Your task to perform on an android device: change your default location settings in chrome Image 0: 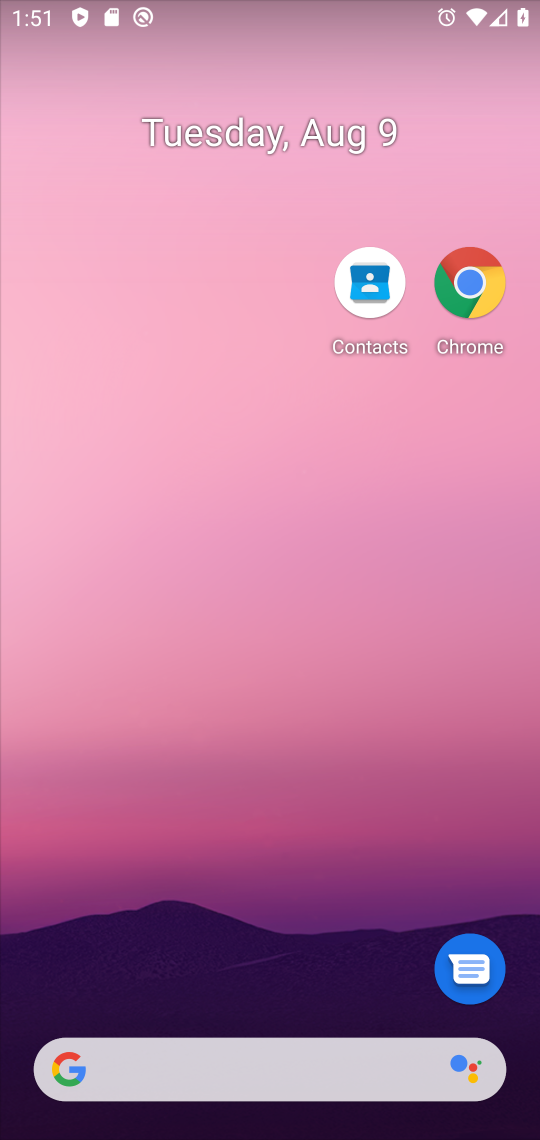
Step 0: drag from (375, 881) to (440, 336)
Your task to perform on an android device: change your default location settings in chrome Image 1: 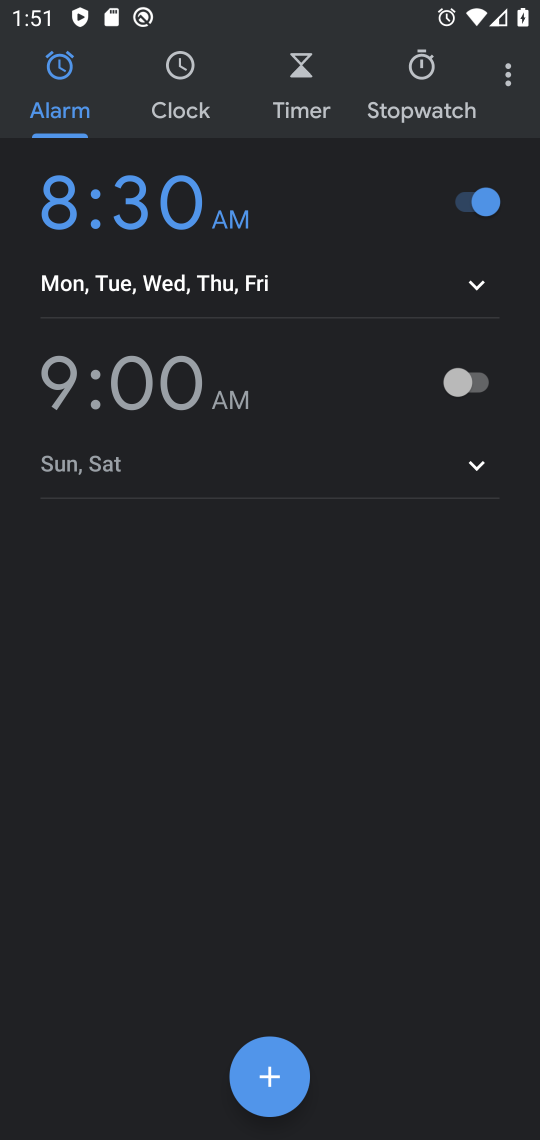
Step 1: press home button
Your task to perform on an android device: change your default location settings in chrome Image 2: 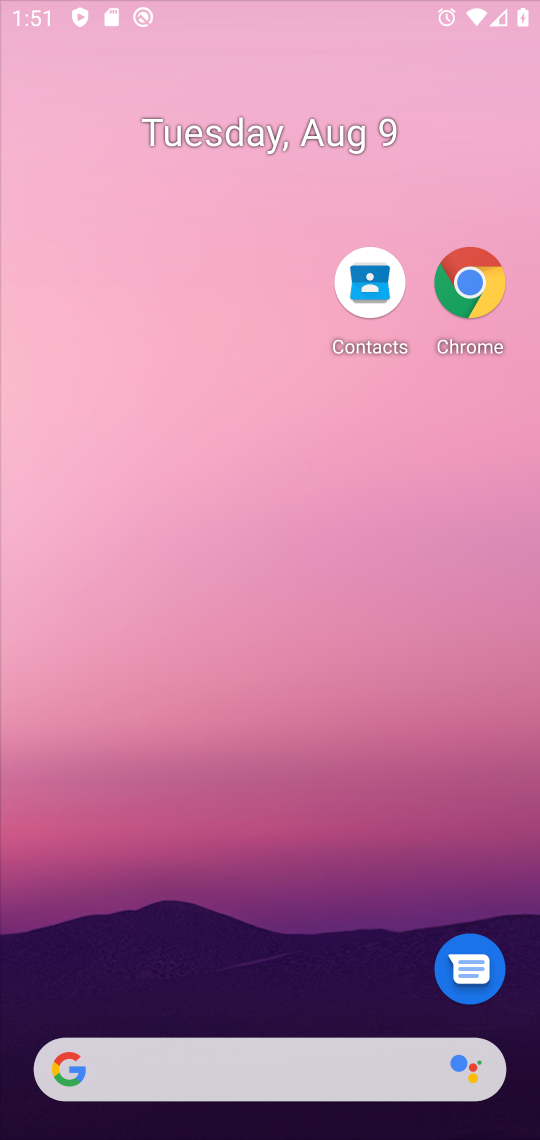
Step 2: drag from (377, 951) to (377, 548)
Your task to perform on an android device: change your default location settings in chrome Image 3: 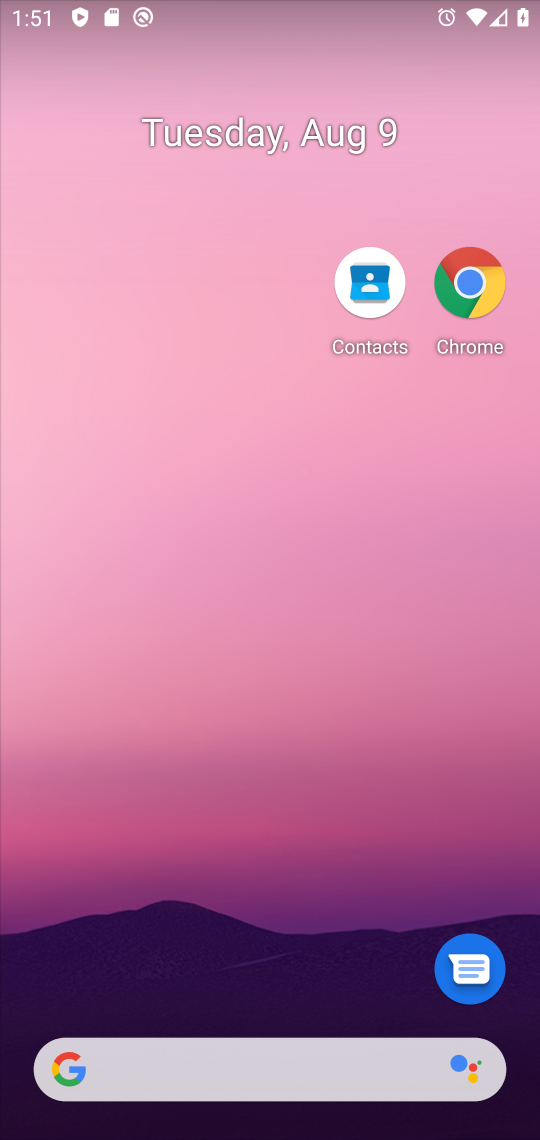
Step 3: click (304, 140)
Your task to perform on an android device: change your default location settings in chrome Image 4: 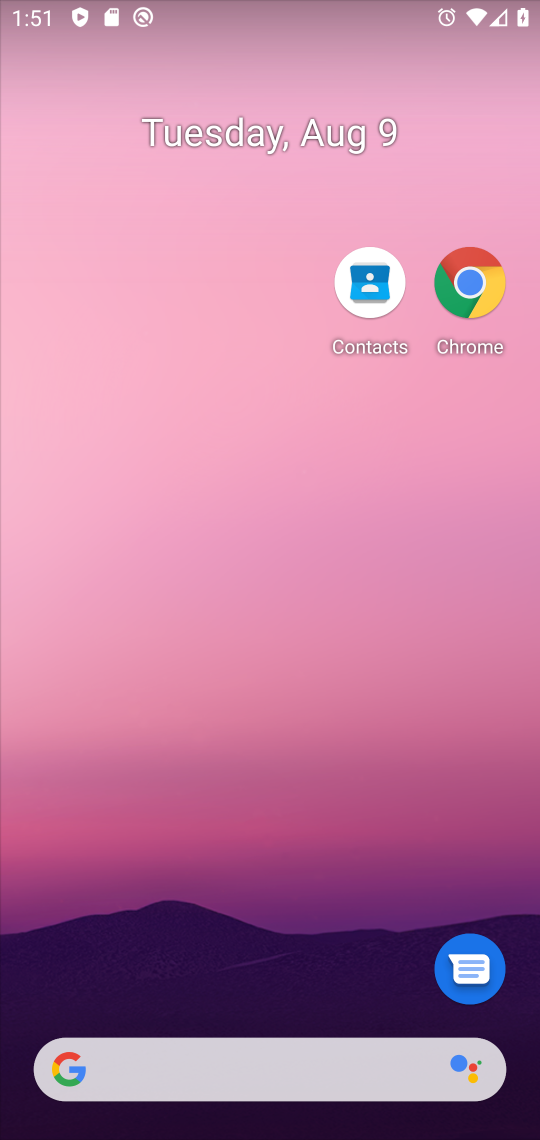
Step 4: drag from (287, 985) to (334, 239)
Your task to perform on an android device: change your default location settings in chrome Image 5: 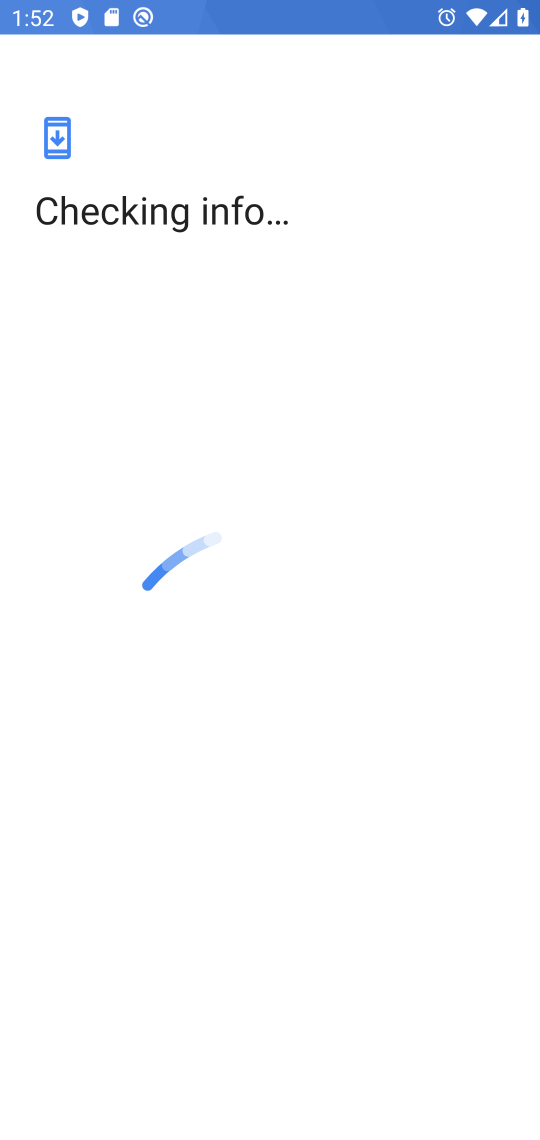
Step 5: press back button
Your task to perform on an android device: change your default location settings in chrome Image 6: 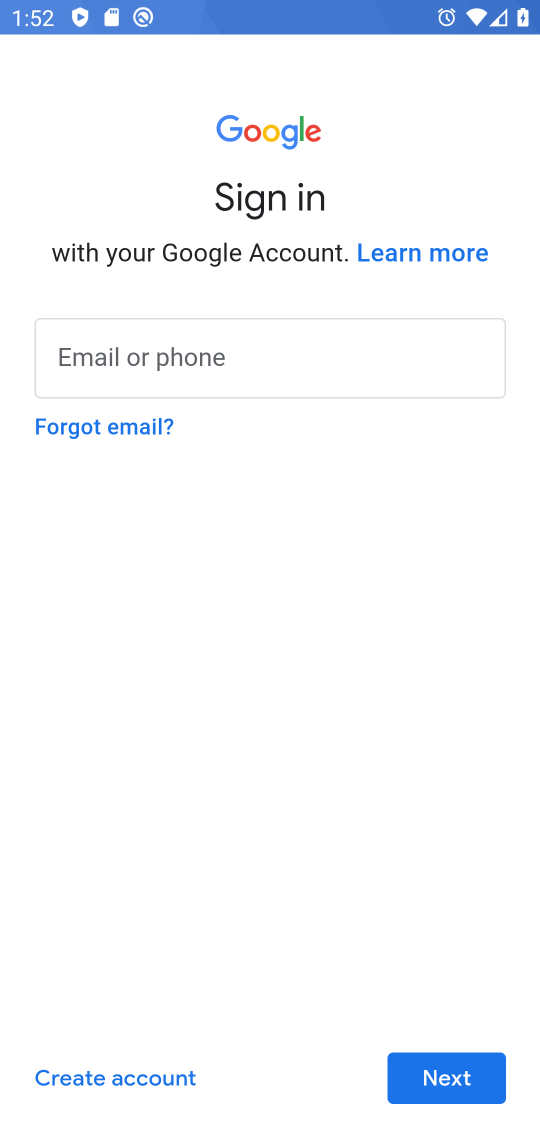
Step 6: press back button
Your task to perform on an android device: change your default location settings in chrome Image 7: 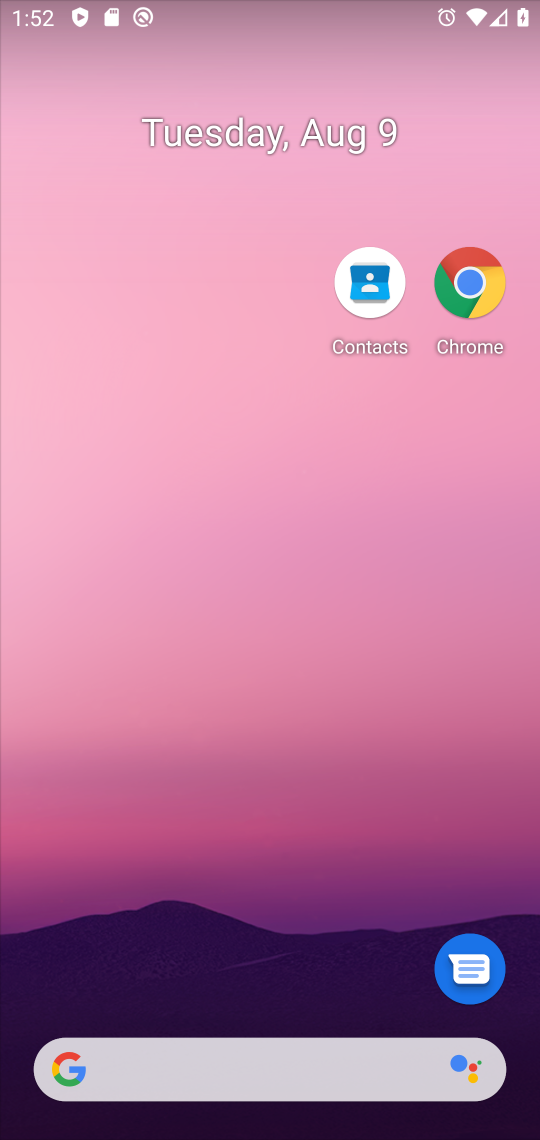
Step 7: press home button
Your task to perform on an android device: change your default location settings in chrome Image 8: 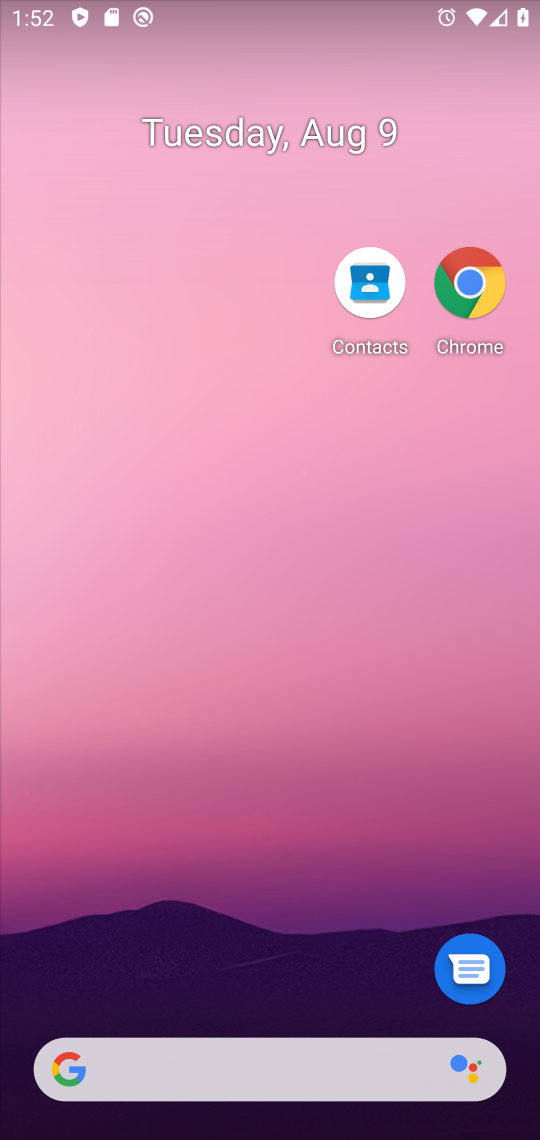
Step 8: drag from (280, 962) to (452, 170)
Your task to perform on an android device: change your default location settings in chrome Image 9: 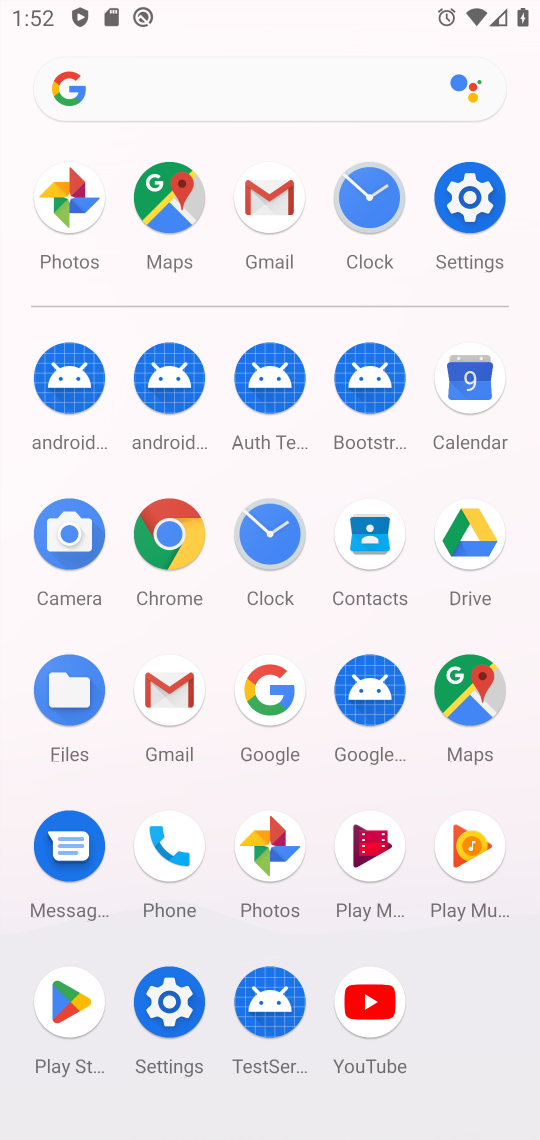
Step 9: click (170, 530)
Your task to perform on an android device: change your default location settings in chrome Image 10: 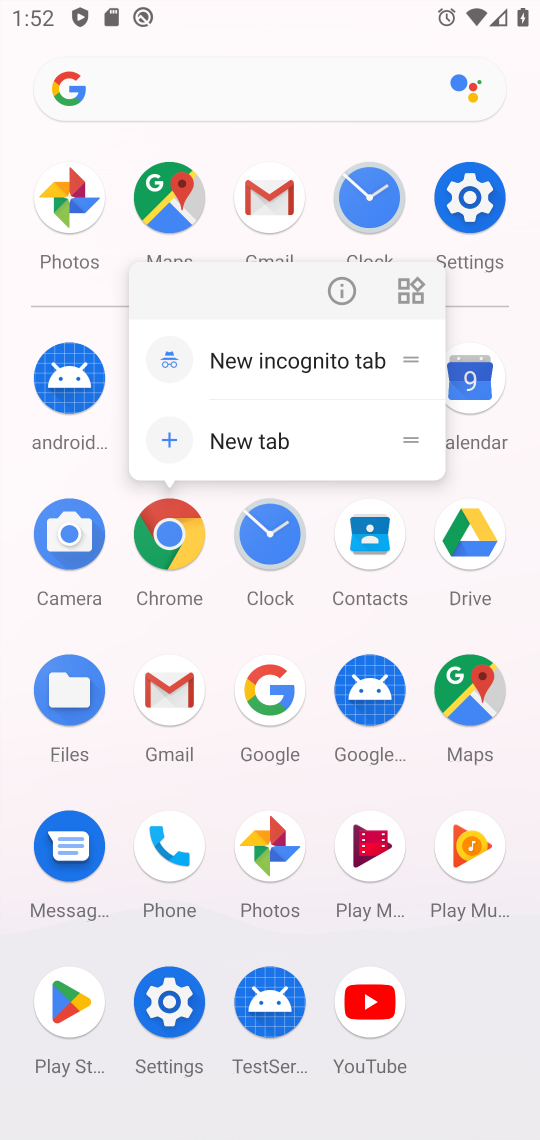
Step 10: click (349, 284)
Your task to perform on an android device: change your default location settings in chrome Image 11: 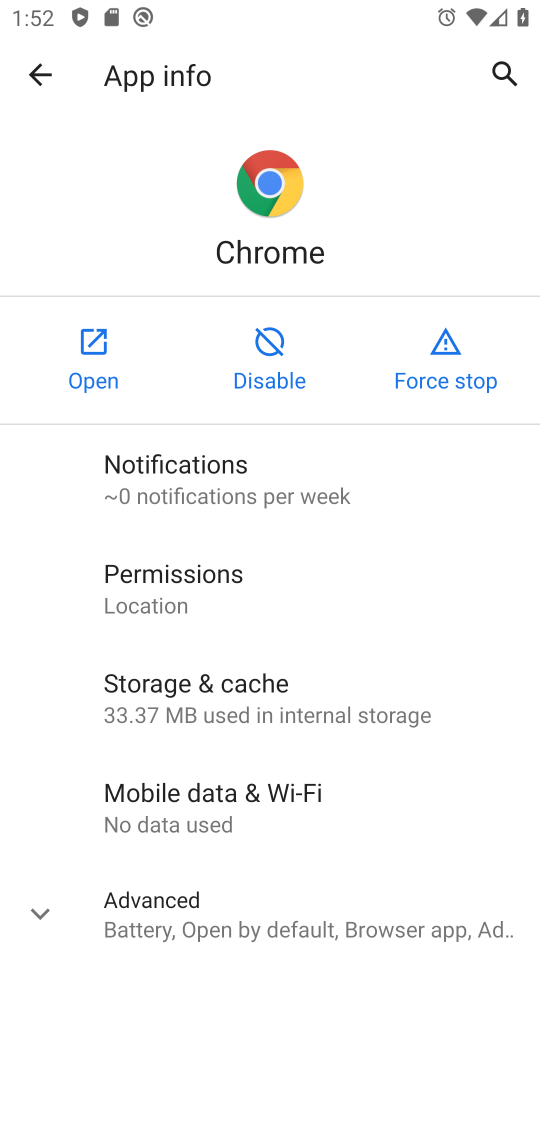
Step 11: click (89, 380)
Your task to perform on an android device: change your default location settings in chrome Image 12: 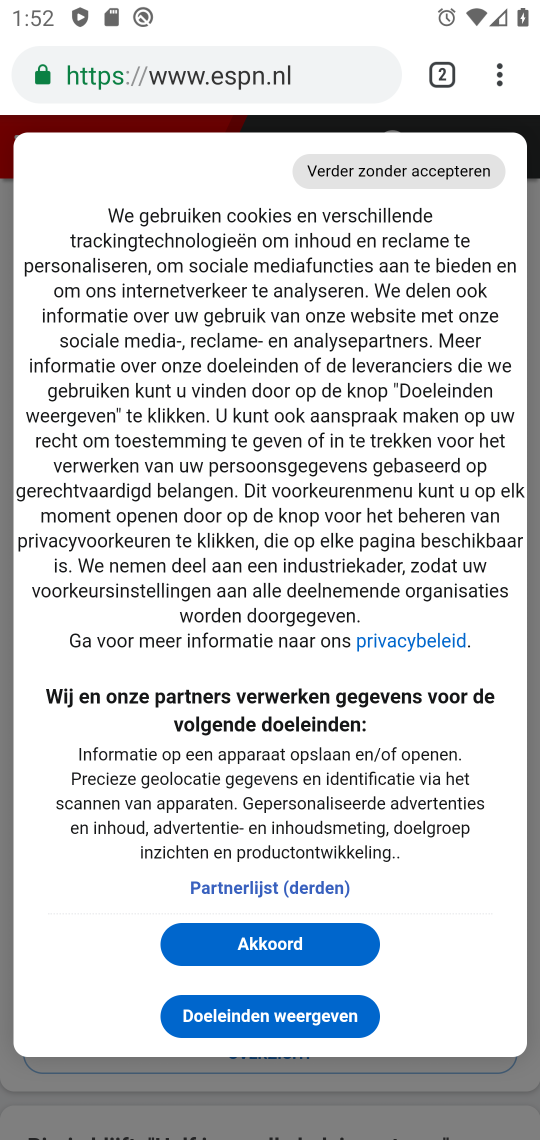
Step 12: drag from (297, 664) to (501, 70)
Your task to perform on an android device: change your default location settings in chrome Image 13: 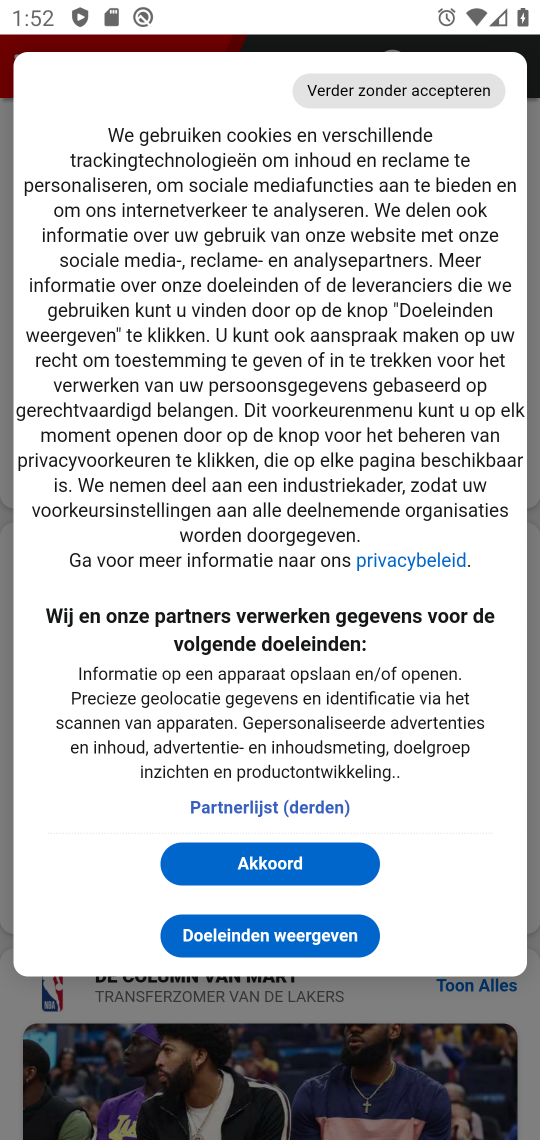
Step 13: drag from (474, 161) to (370, 537)
Your task to perform on an android device: change your default location settings in chrome Image 14: 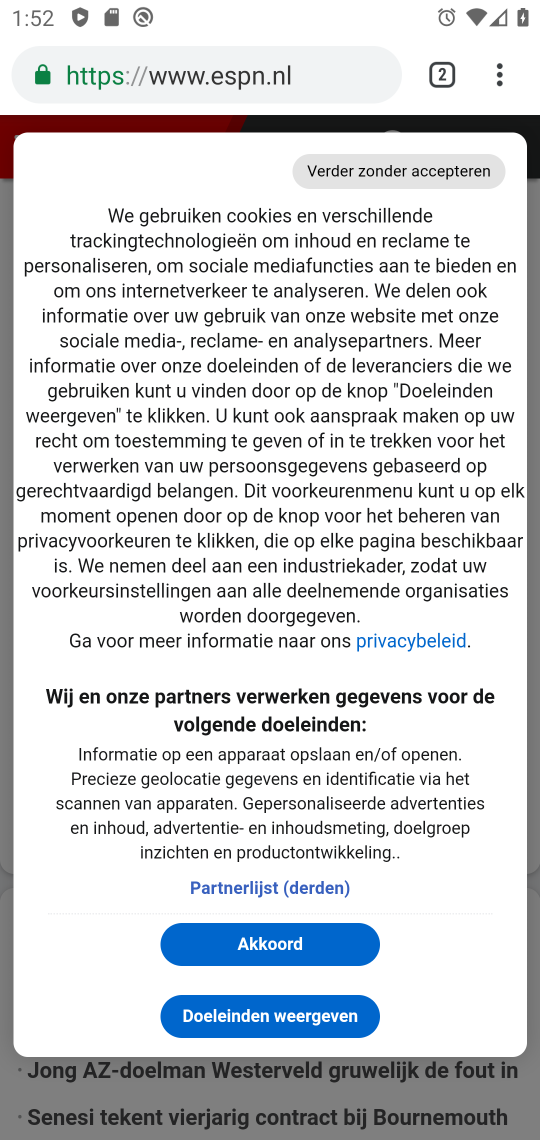
Step 14: drag from (499, 76) to (312, 903)
Your task to perform on an android device: change your default location settings in chrome Image 15: 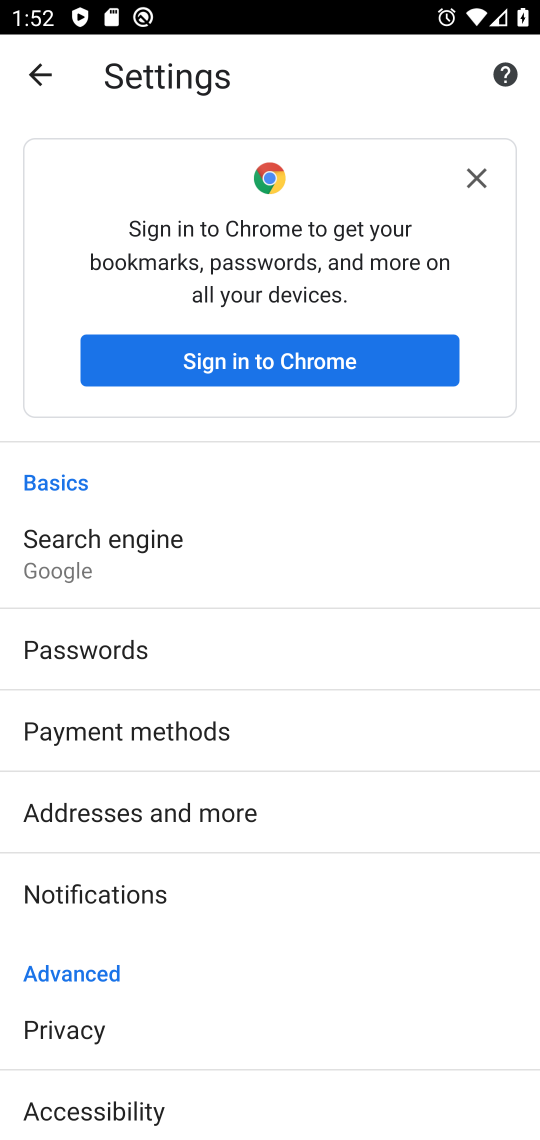
Step 15: drag from (230, 905) to (297, 592)
Your task to perform on an android device: change your default location settings in chrome Image 16: 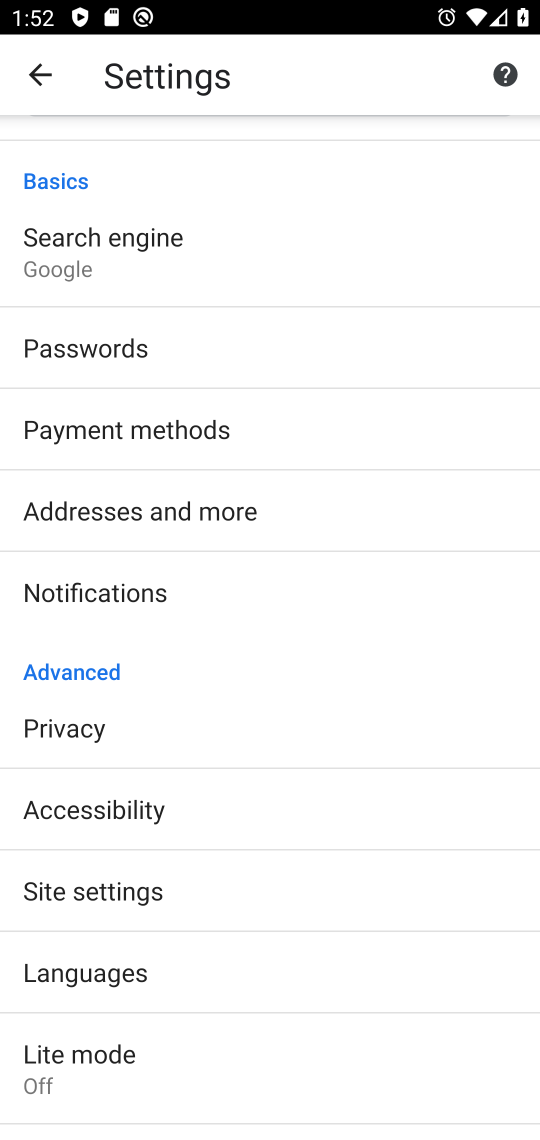
Step 16: click (167, 885)
Your task to perform on an android device: change your default location settings in chrome Image 17: 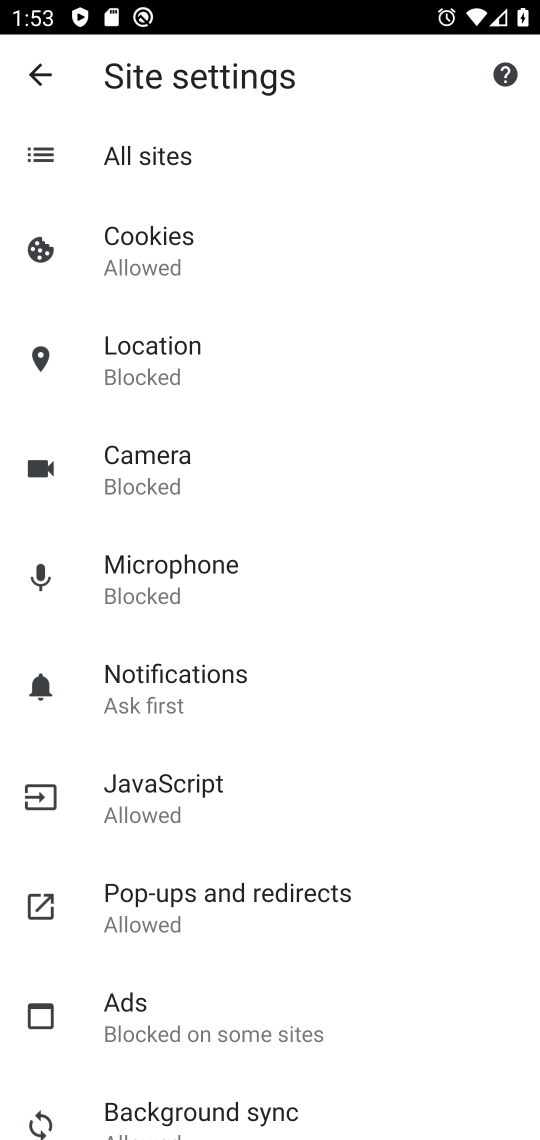
Step 17: click (229, 347)
Your task to perform on an android device: change your default location settings in chrome Image 18: 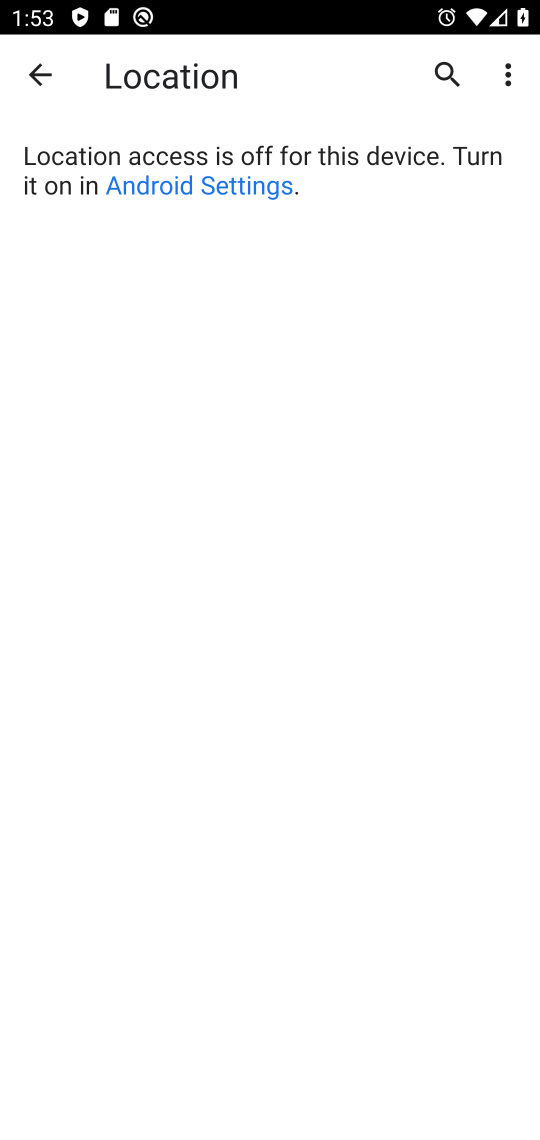
Step 18: task complete